Your task to perform on an android device: add a contact in the contacts app Image 0: 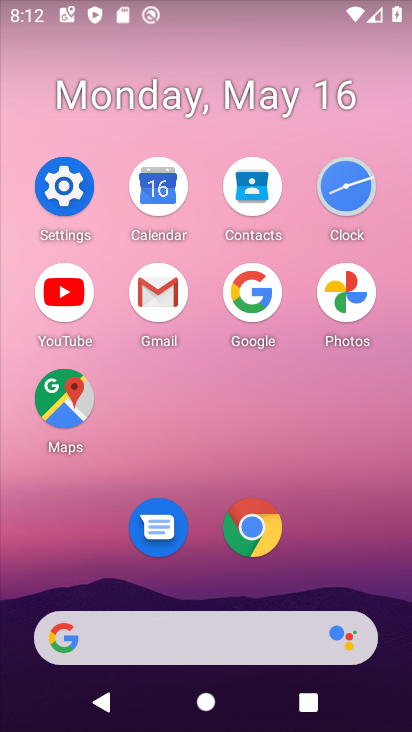
Step 0: click (250, 209)
Your task to perform on an android device: add a contact in the contacts app Image 1: 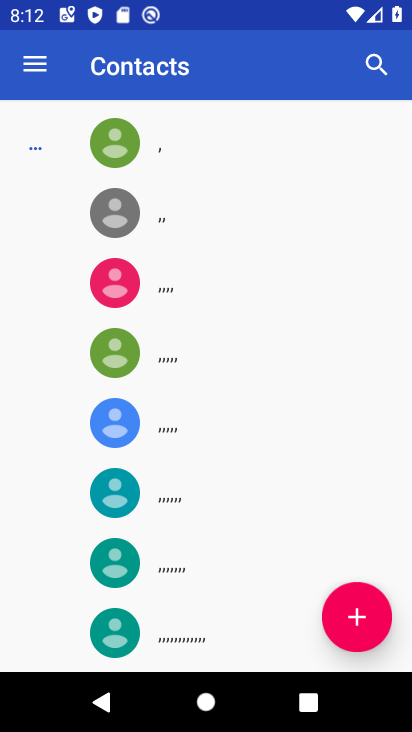
Step 1: click (367, 615)
Your task to perform on an android device: add a contact in the contacts app Image 2: 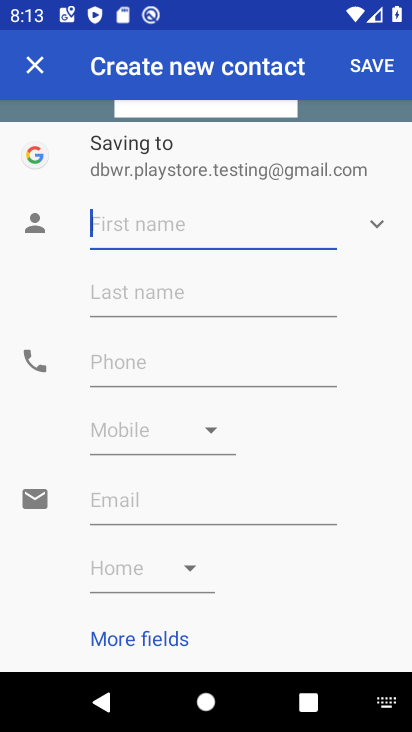
Step 2: type ""
Your task to perform on an android device: add a contact in the contacts app Image 3: 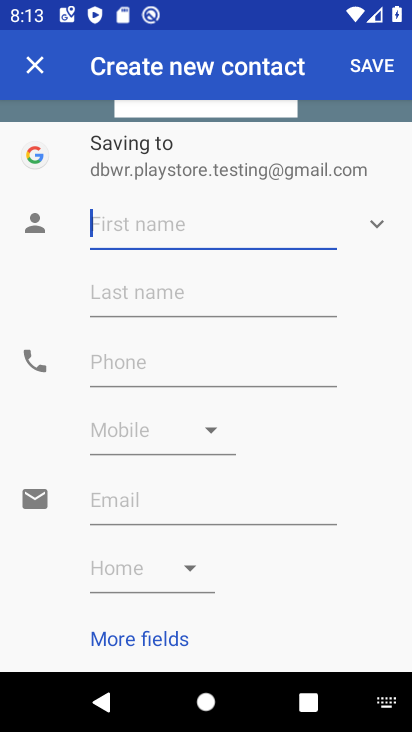
Step 3: type "musician"
Your task to perform on an android device: add a contact in the contacts app Image 4: 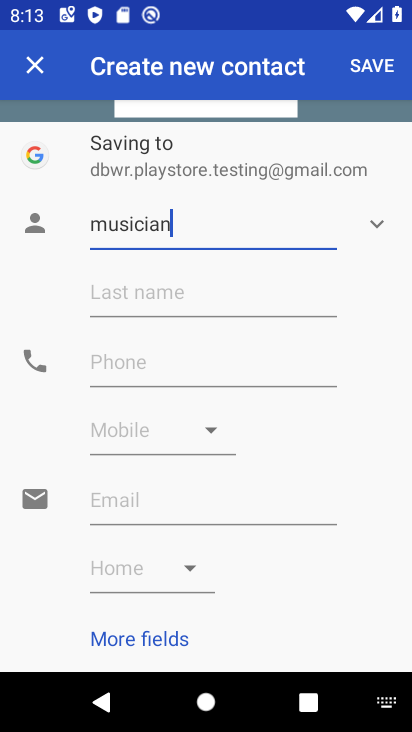
Step 4: click (149, 376)
Your task to perform on an android device: add a contact in the contacts app Image 5: 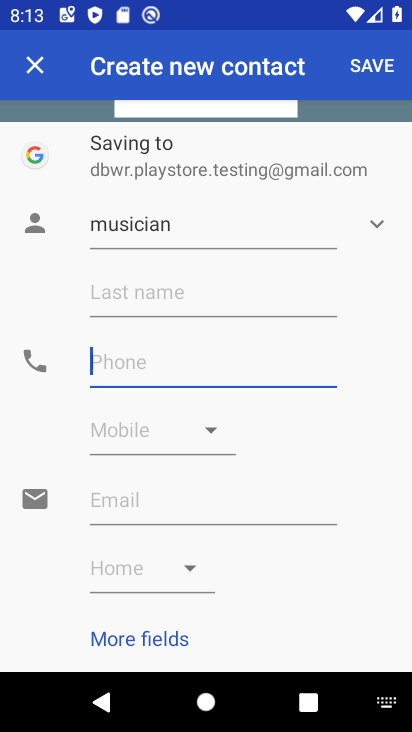
Step 5: type "1231231234"
Your task to perform on an android device: add a contact in the contacts app Image 6: 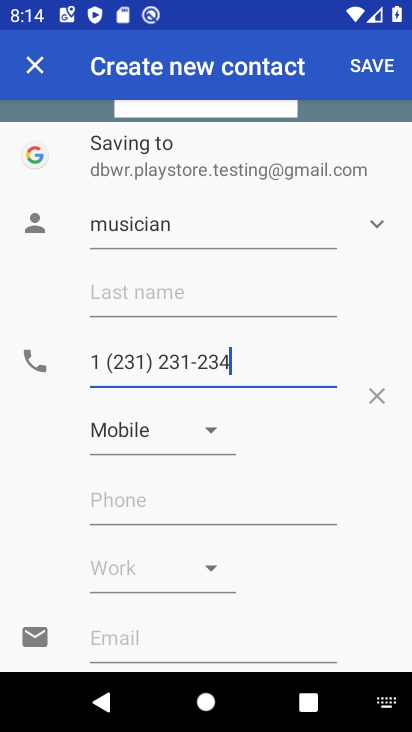
Step 6: task complete